Your task to perform on an android device: turn on javascript in the chrome app Image 0: 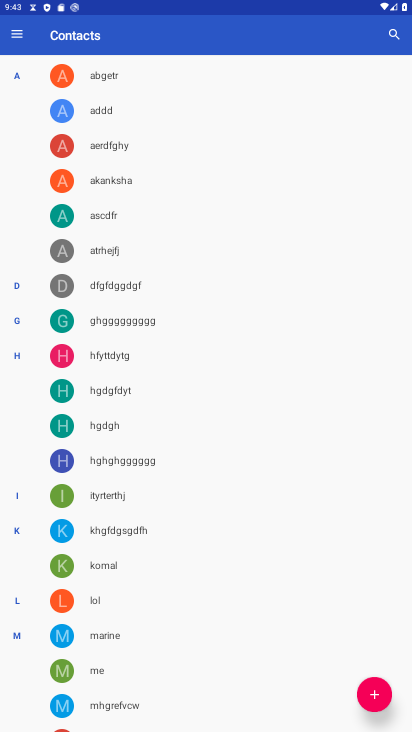
Step 0: drag from (317, 627) to (280, 379)
Your task to perform on an android device: turn on javascript in the chrome app Image 1: 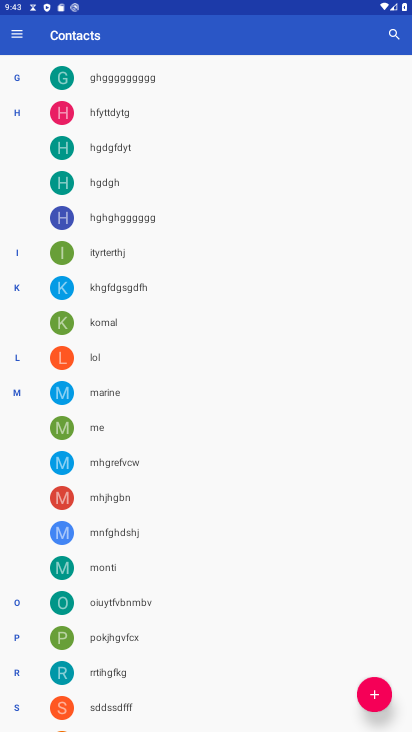
Step 1: drag from (301, 578) to (302, 340)
Your task to perform on an android device: turn on javascript in the chrome app Image 2: 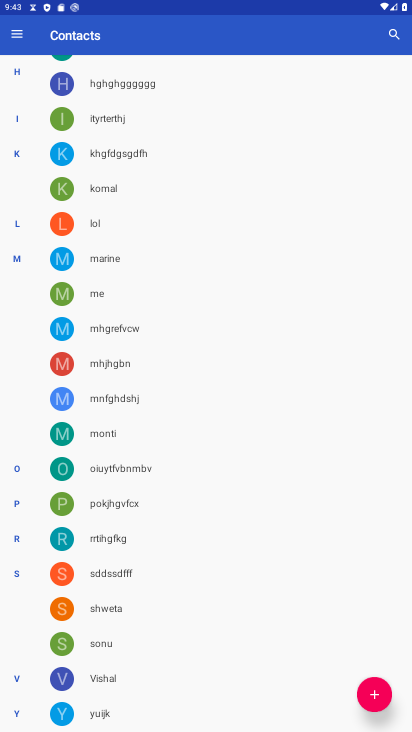
Step 2: press home button
Your task to perform on an android device: turn on javascript in the chrome app Image 3: 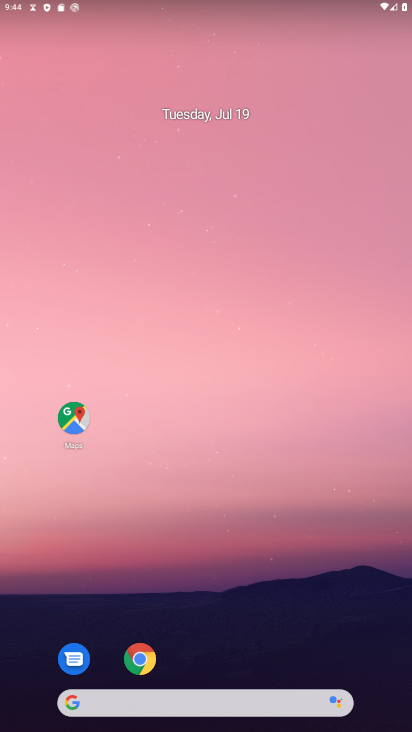
Step 3: drag from (375, 596) to (303, 93)
Your task to perform on an android device: turn on javascript in the chrome app Image 4: 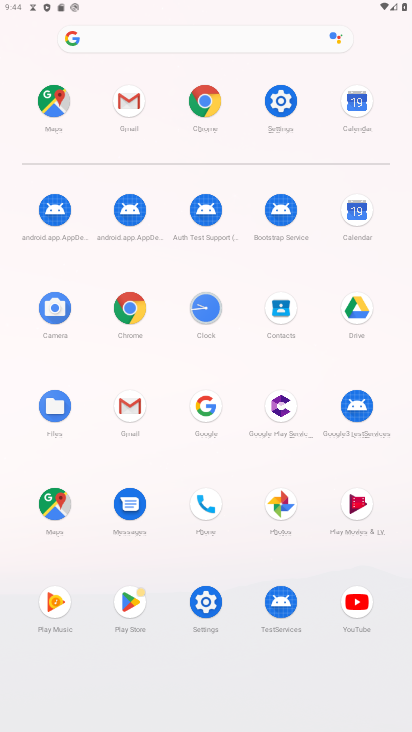
Step 4: click (131, 393)
Your task to perform on an android device: turn on javascript in the chrome app Image 5: 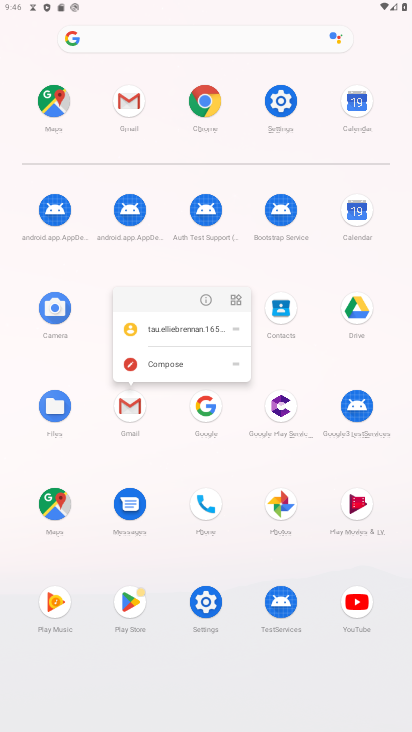
Step 5: drag from (233, 679) to (213, 29)
Your task to perform on an android device: turn on javascript in the chrome app Image 6: 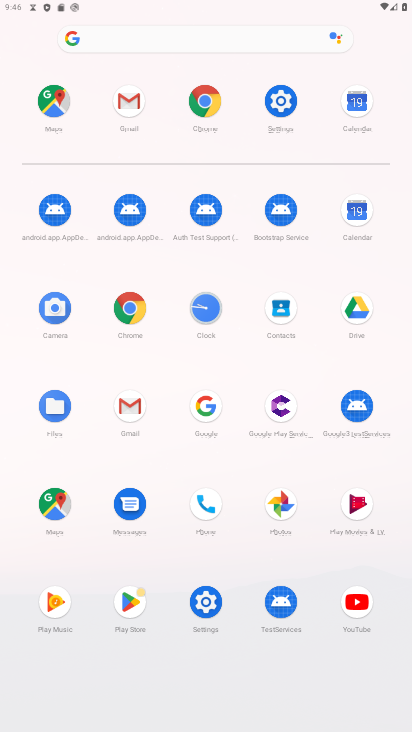
Step 6: click (126, 305)
Your task to perform on an android device: turn on javascript in the chrome app Image 7: 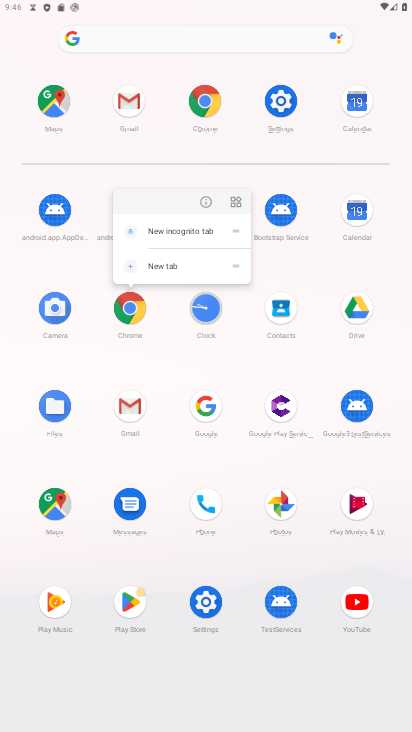
Step 7: click (209, 198)
Your task to perform on an android device: turn on javascript in the chrome app Image 8: 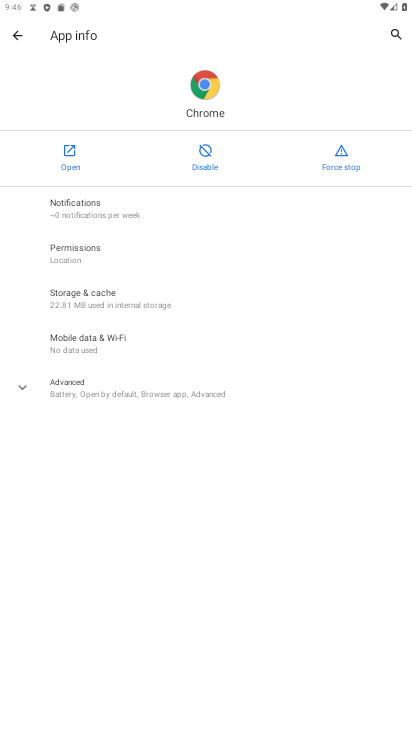
Step 8: click (77, 150)
Your task to perform on an android device: turn on javascript in the chrome app Image 9: 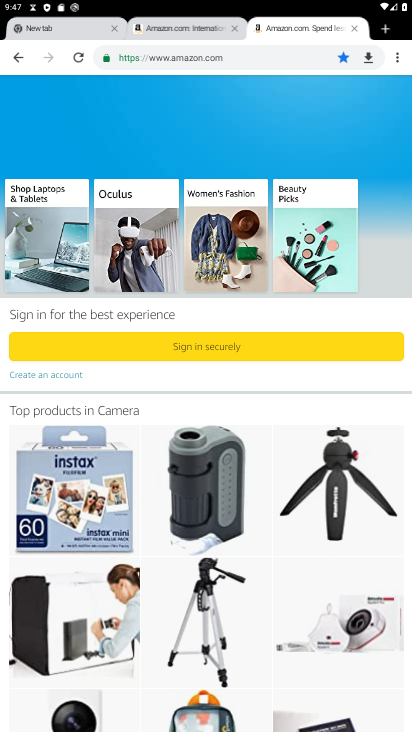
Step 9: drag from (312, 655) to (350, 8)
Your task to perform on an android device: turn on javascript in the chrome app Image 10: 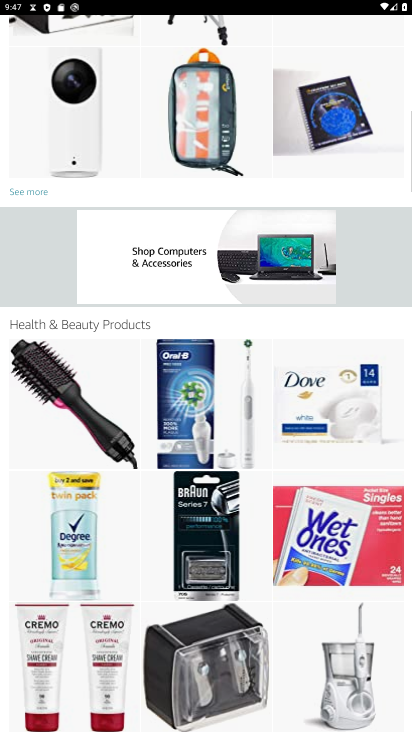
Step 10: drag from (275, 144) to (313, 549)
Your task to perform on an android device: turn on javascript in the chrome app Image 11: 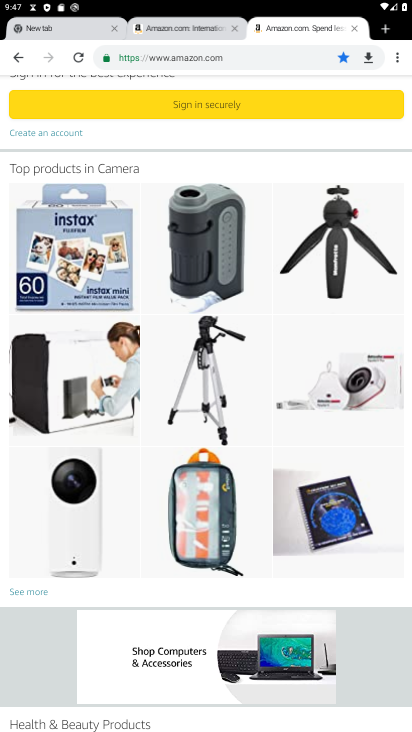
Step 11: drag from (399, 50) to (330, 386)
Your task to perform on an android device: turn on javascript in the chrome app Image 12: 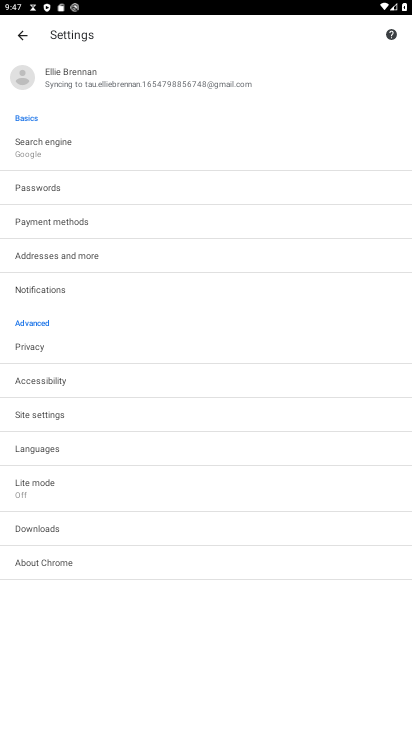
Step 12: click (149, 403)
Your task to perform on an android device: turn on javascript in the chrome app Image 13: 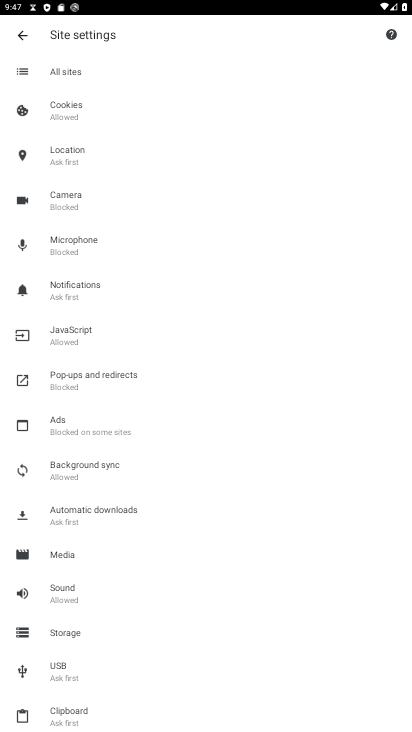
Step 13: drag from (133, 627) to (130, 337)
Your task to perform on an android device: turn on javascript in the chrome app Image 14: 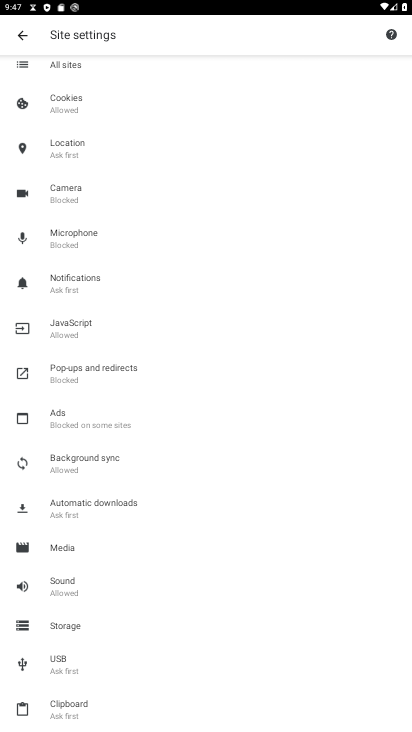
Step 14: click (99, 322)
Your task to perform on an android device: turn on javascript in the chrome app Image 15: 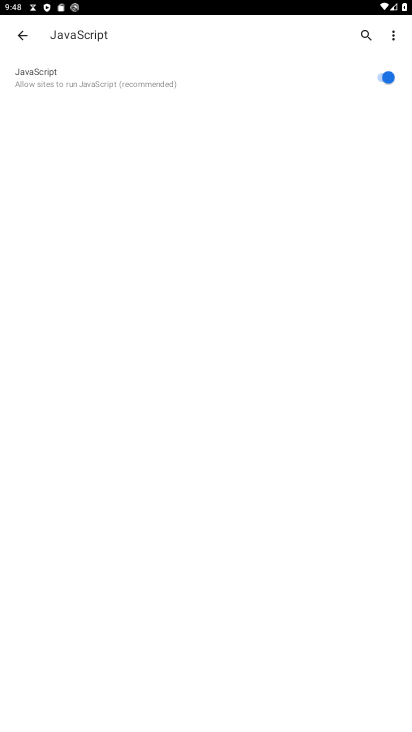
Step 15: task complete